Your task to perform on an android device: Go to Yahoo.com Image 0: 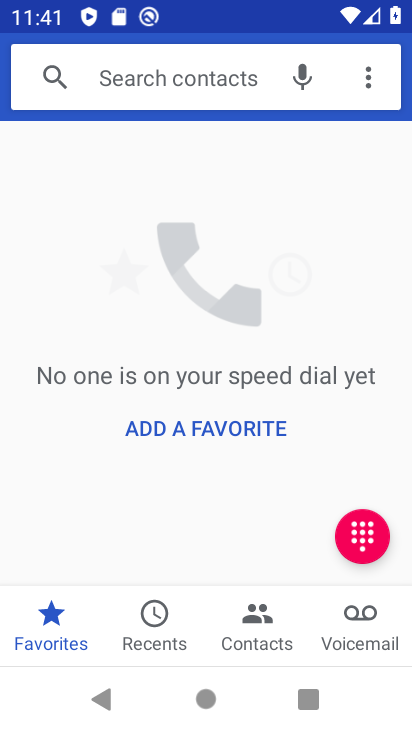
Step 0: press home button
Your task to perform on an android device: Go to Yahoo.com Image 1: 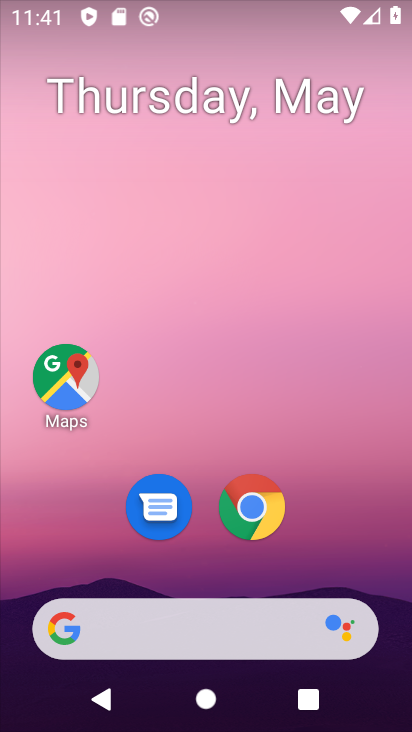
Step 1: drag from (215, 585) to (304, 96)
Your task to perform on an android device: Go to Yahoo.com Image 2: 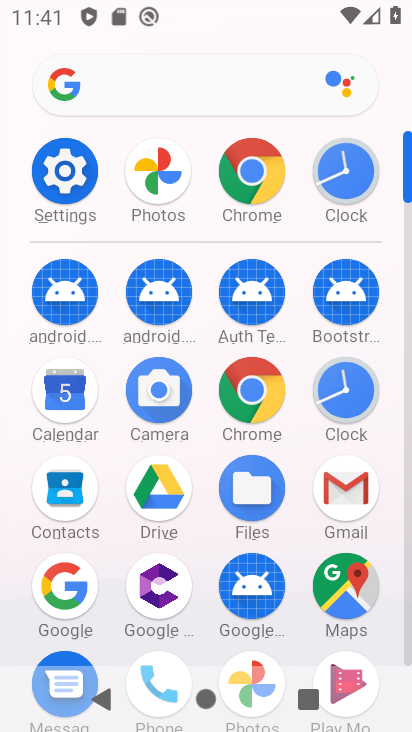
Step 2: click (238, 187)
Your task to perform on an android device: Go to Yahoo.com Image 3: 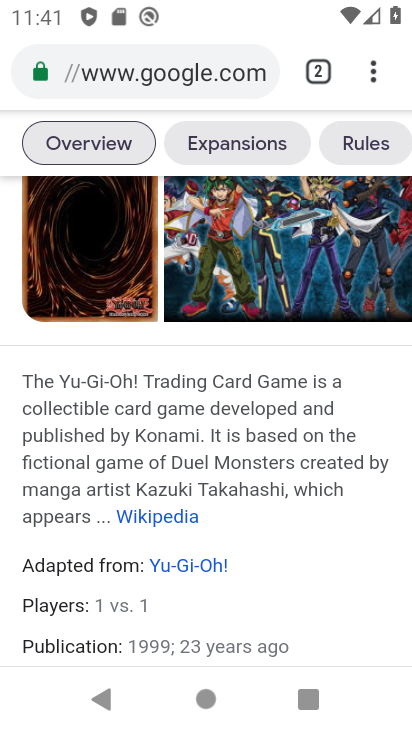
Step 3: click (206, 65)
Your task to perform on an android device: Go to Yahoo.com Image 4: 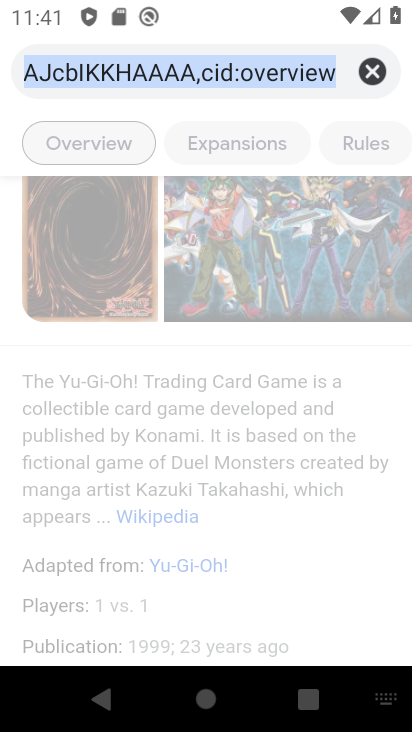
Step 4: type "yahoo.com"
Your task to perform on an android device: Go to Yahoo.com Image 5: 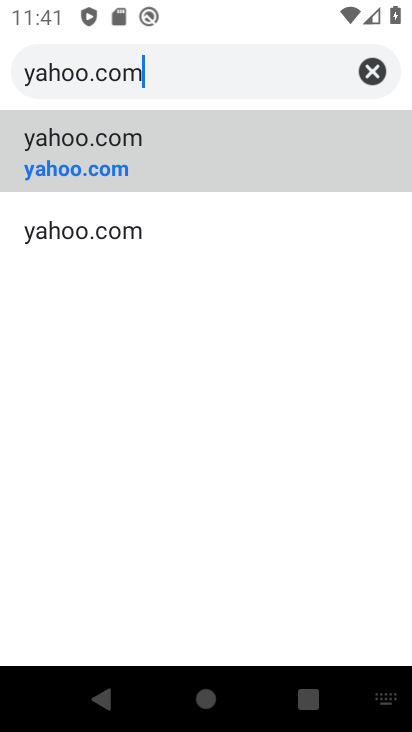
Step 5: click (274, 150)
Your task to perform on an android device: Go to Yahoo.com Image 6: 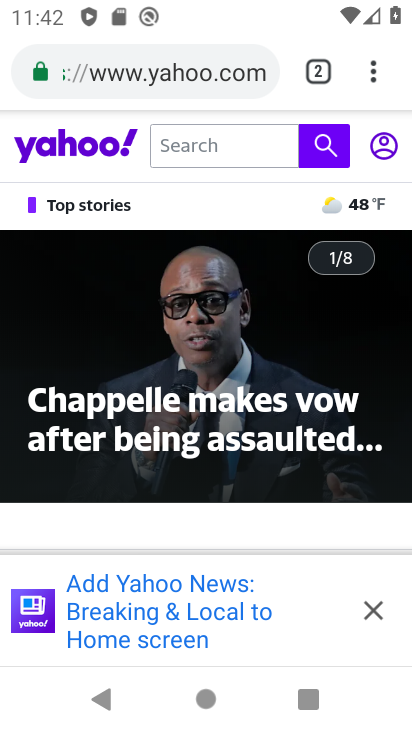
Step 6: task complete